Your task to perform on an android device: Open battery settings Image 0: 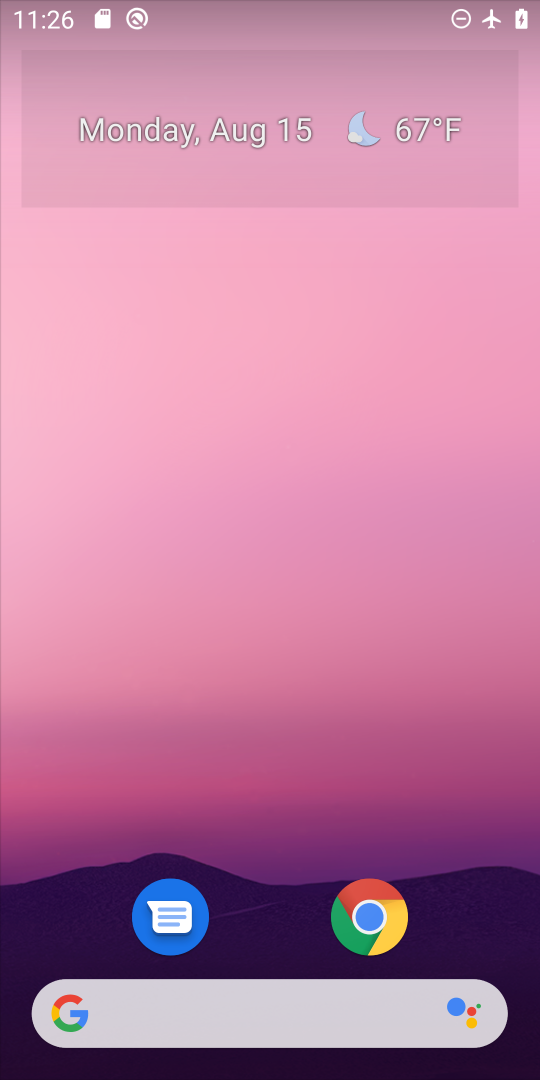
Step 0: drag from (264, 863) to (196, 113)
Your task to perform on an android device: Open battery settings Image 1: 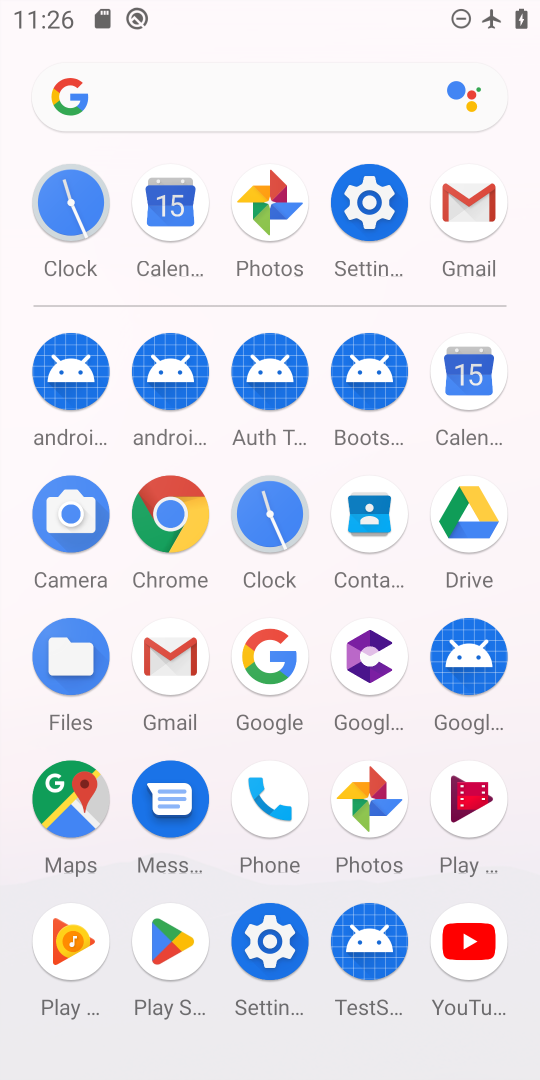
Step 1: click (385, 198)
Your task to perform on an android device: Open battery settings Image 2: 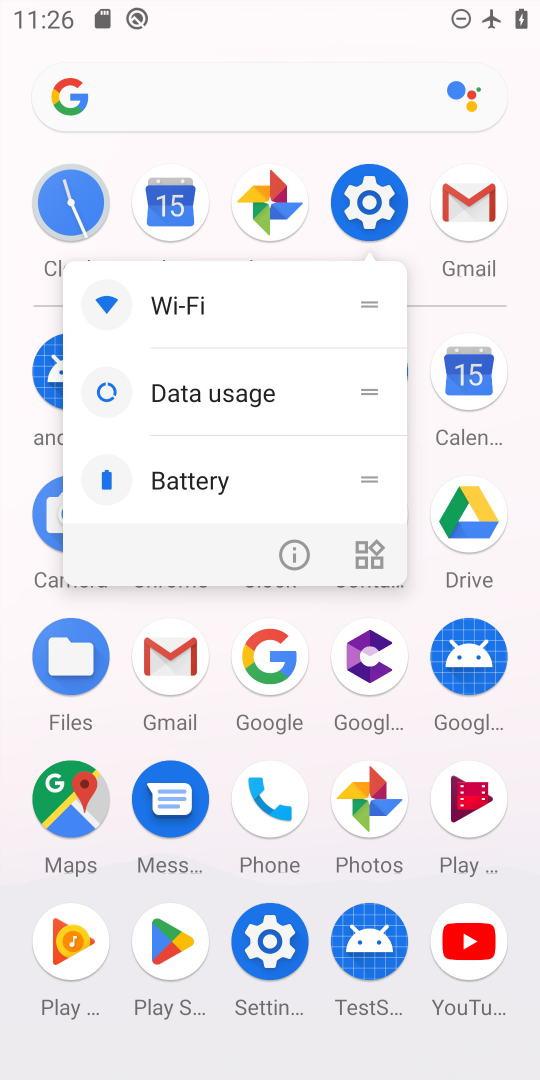
Step 2: click (371, 208)
Your task to perform on an android device: Open battery settings Image 3: 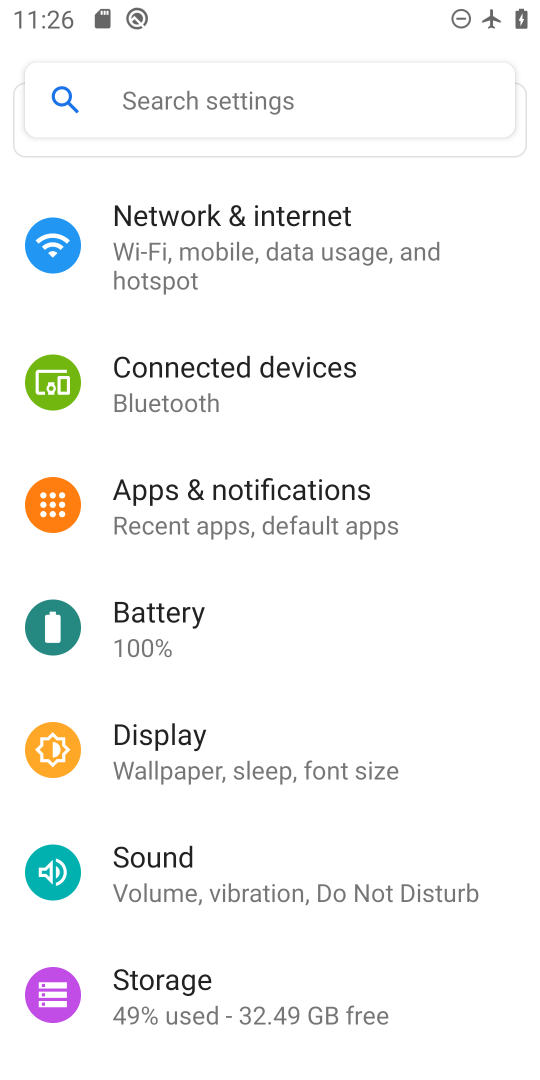
Step 3: click (201, 636)
Your task to perform on an android device: Open battery settings Image 4: 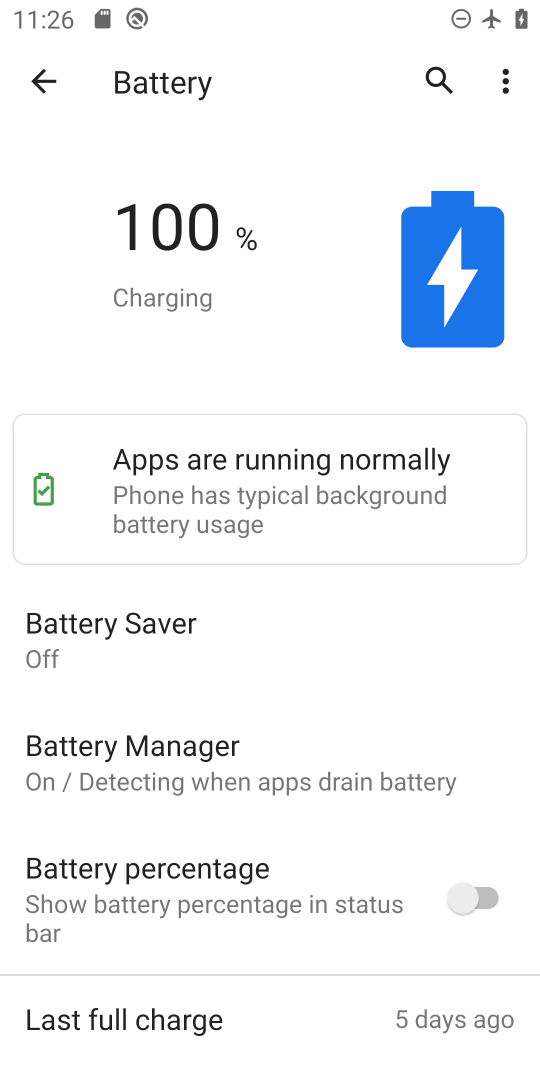
Step 4: task complete